Your task to perform on an android device: Open Chrome and go to settings Image 0: 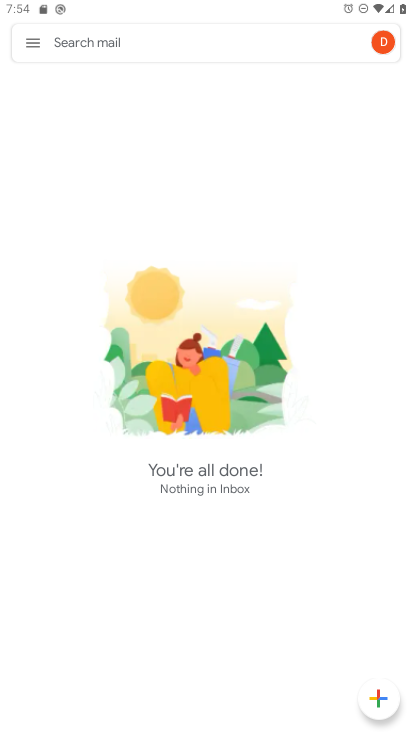
Step 0: press home button
Your task to perform on an android device: Open Chrome and go to settings Image 1: 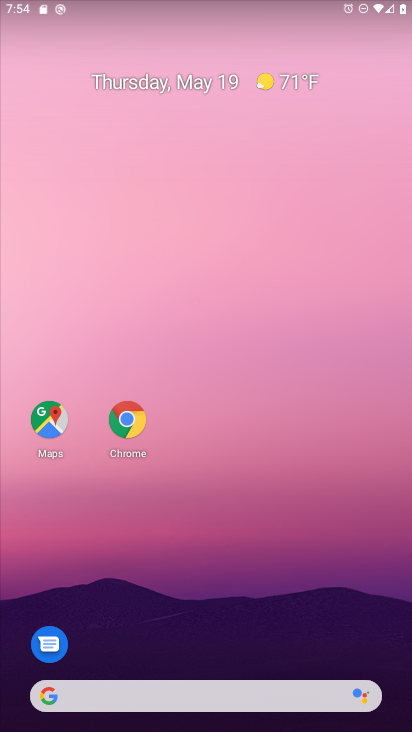
Step 1: click (123, 416)
Your task to perform on an android device: Open Chrome and go to settings Image 2: 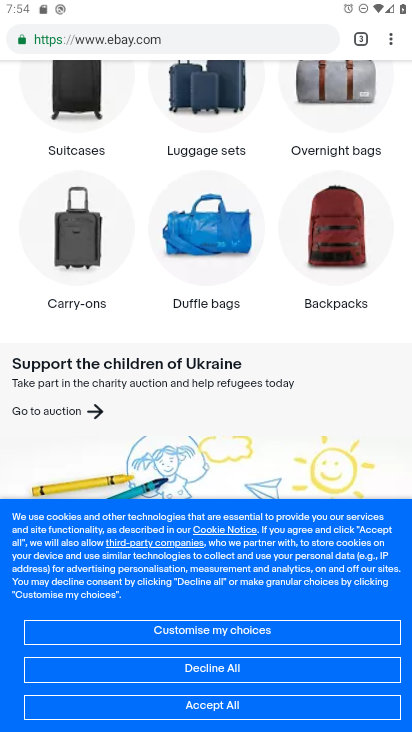
Step 2: click (387, 37)
Your task to perform on an android device: Open Chrome and go to settings Image 3: 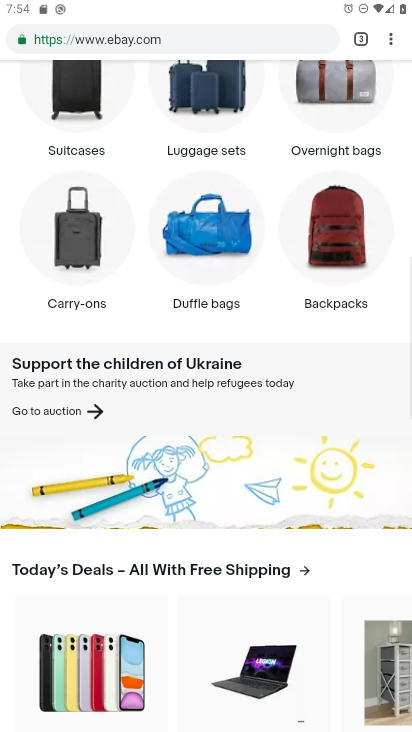
Step 3: click (390, 36)
Your task to perform on an android device: Open Chrome and go to settings Image 4: 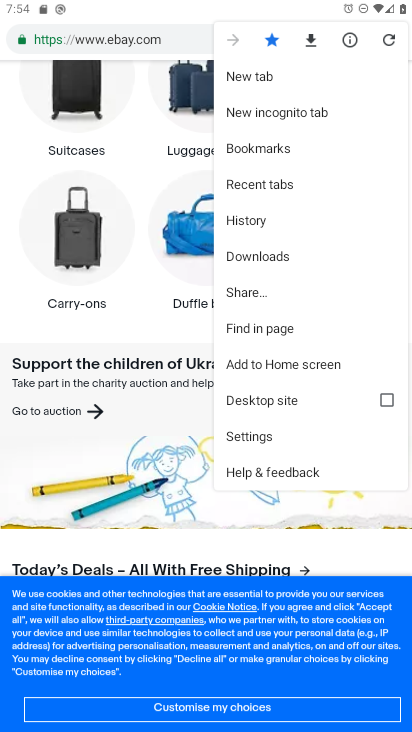
Step 4: click (269, 435)
Your task to perform on an android device: Open Chrome and go to settings Image 5: 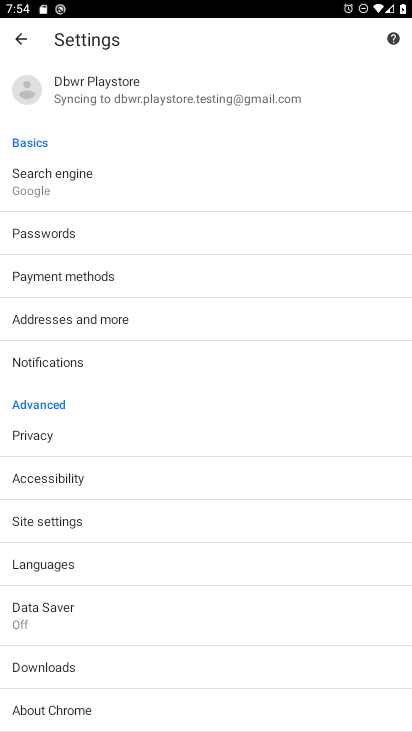
Step 5: task complete